Your task to perform on an android device: Do I have any events today? Image 0: 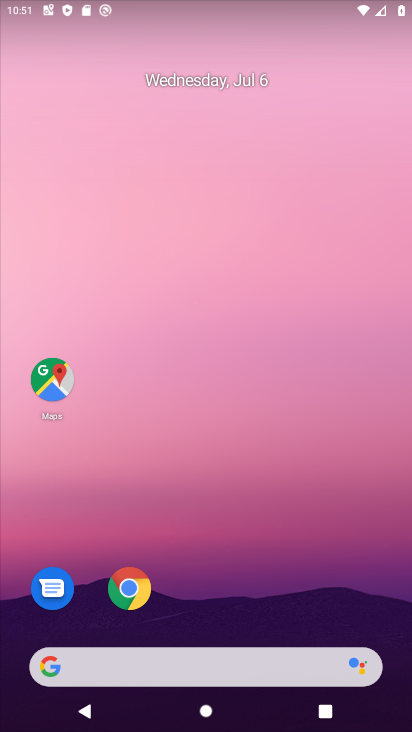
Step 0: drag from (292, 620) to (282, 244)
Your task to perform on an android device: Do I have any events today? Image 1: 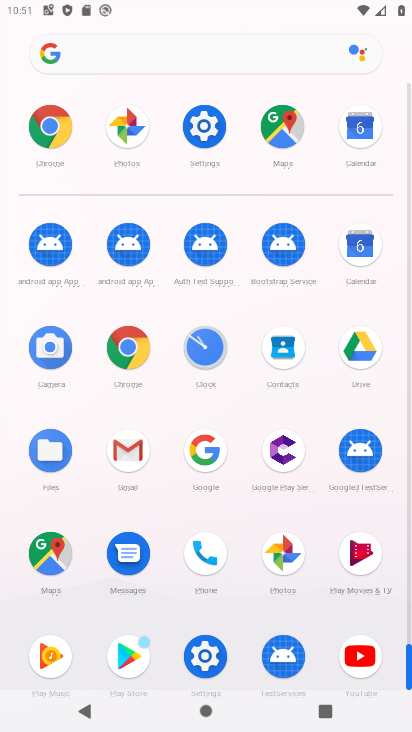
Step 1: click (358, 236)
Your task to perform on an android device: Do I have any events today? Image 2: 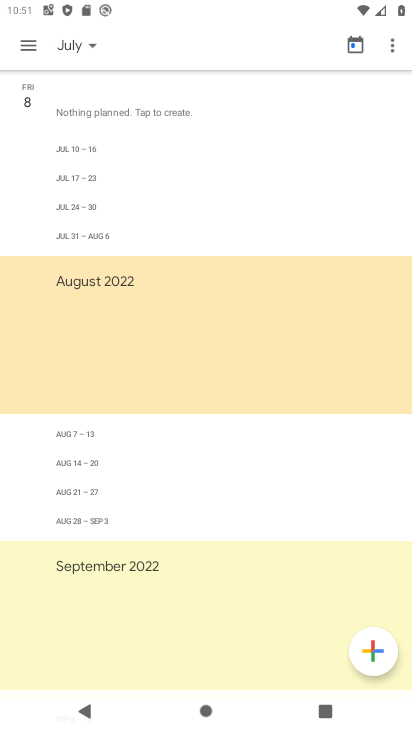
Step 2: click (25, 36)
Your task to perform on an android device: Do I have any events today? Image 3: 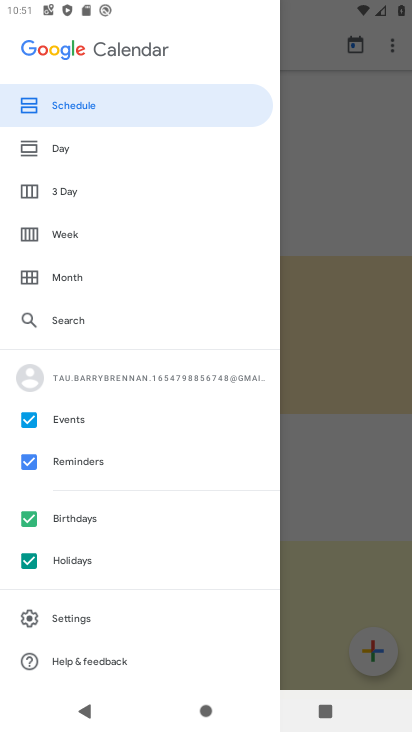
Step 3: click (70, 276)
Your task to perform on an android device: Do I have any events today? Image 4: 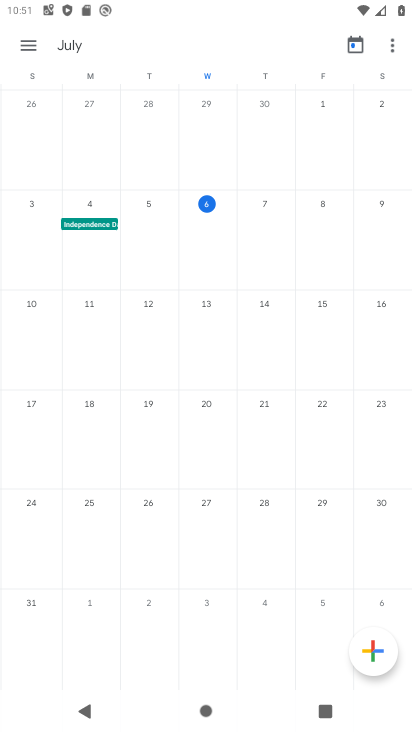
Step 4: click (239, 209)
Your task to perform on an android device: Do I have any events today? Image 5: 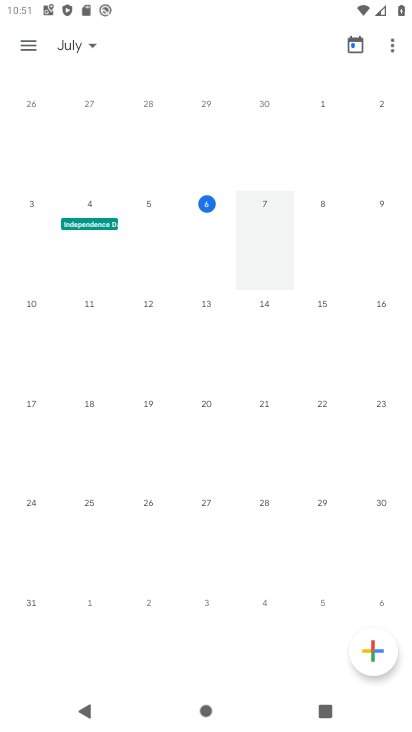
Step 5: click (269, 217)
Your task to perform on an android device: Do I have any events today? Image 6: 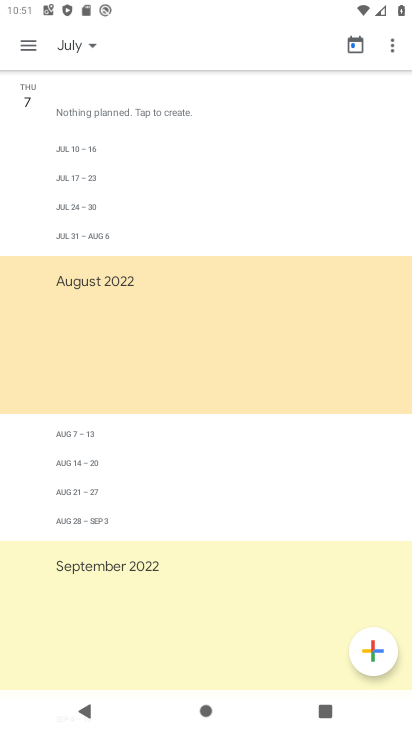
Step 6: task complete